Your task to perform on an android device: Add "usb-c to usb-b" to the cart on bestbuy, then select checkout. Image 0: 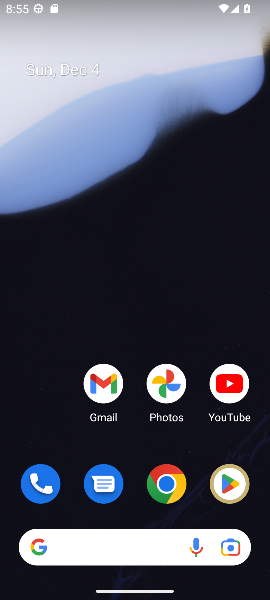
Step 0: click (168, 486)
Your task to perform on an android device: Add "usb-c to usb-b" to the cart on bestbuy, then select checkout. Image 1: 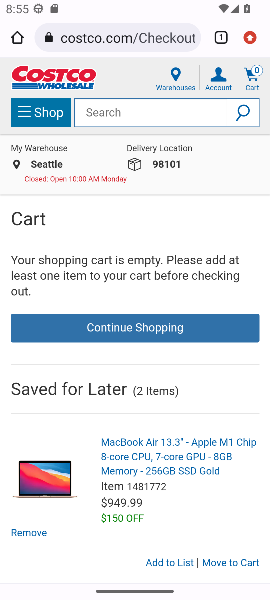
Step 1: click (122, 35)
Your task to perform on an android device: Add "usb-c to usb-b" to the cart on bestbuy, then select checkout. Image 2: 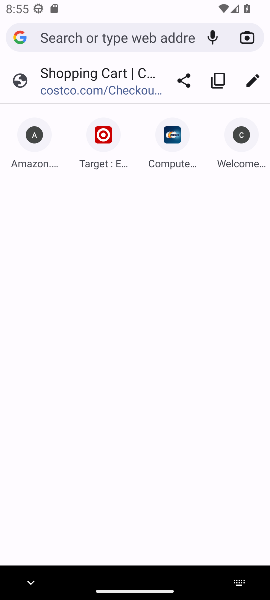
Step 2: type "bestbuy.com"
Your task to perform on an android device: Add "usb-c to usb-b" to the cart on bestbuy, then select checkout. Image 3: 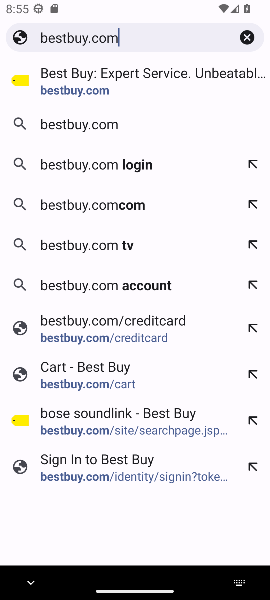
Step 3: click (63, 95)
Your task to perform on an android device: Add "usb-c to usb-b" to the cart on bestbuy, then select checkout. Image 4: 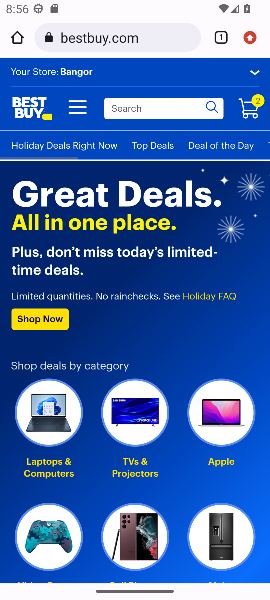
Step 4: click (146, 105)
Your task to perform on an android device: Add "usb-c to usb-b" to the cart on bestbuy, then select checkout. Image 5: 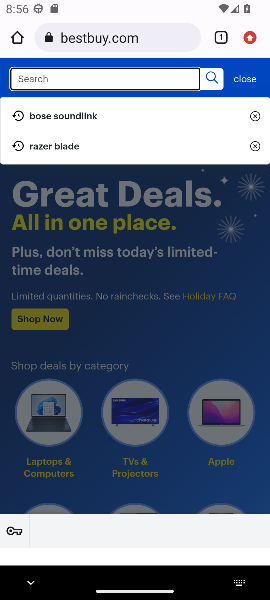
Step 5: type "usb-c to usb-b"
Your task to perform on an android device: Add "usb-c to usb-b" to the cart on bestbuy, then select checkout. Image 6: 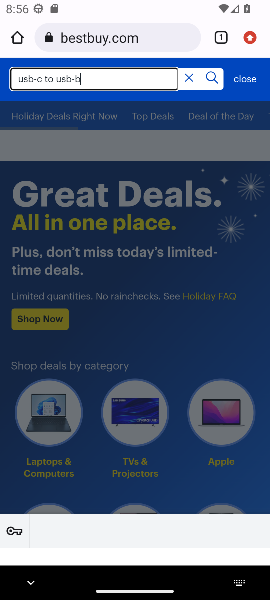
Step 6: click (214, 74)
Your task to perform on an android device: Add "usb-c to usb-b" to the cart on bestbuy, then select checkout. Image 7: 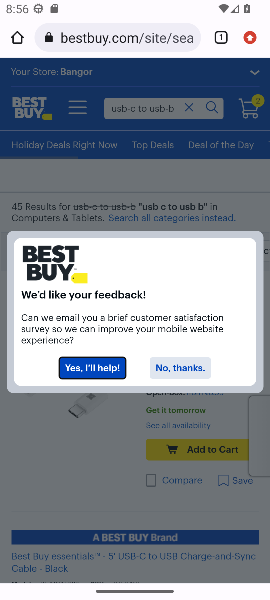
Step 7: click (173, 368)
Your task to perform on an android device: Add "usb-c to usb-b" to the cart on bestbuy, then select checkout. Image 8: 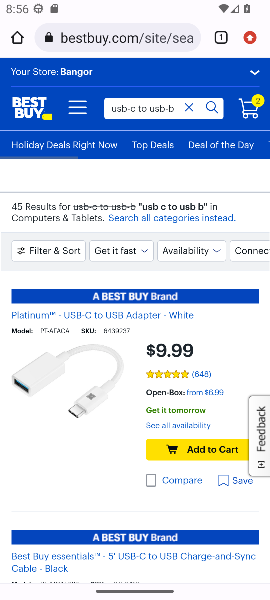
Step 8: task complete